Your task to perform on an android device: change your default location settings in chrome Image 0: 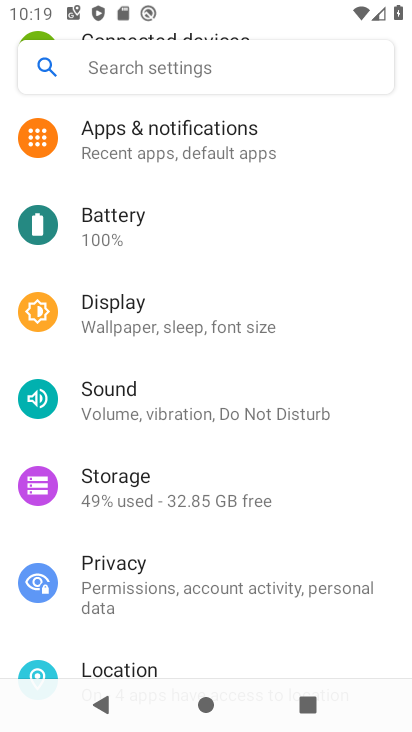
Step 0: press home button
Your task to perform on an android device: change your default location settings in chrome Image 1: 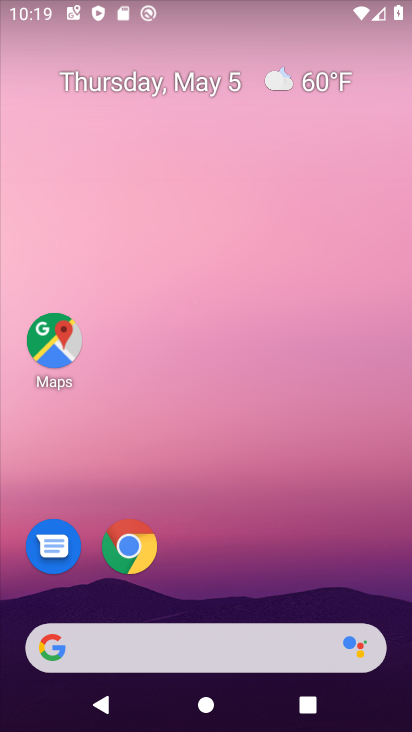
Step 1: click (123, 542)
Your task to perform on an android device: change your default location settings in chrome Image 2: 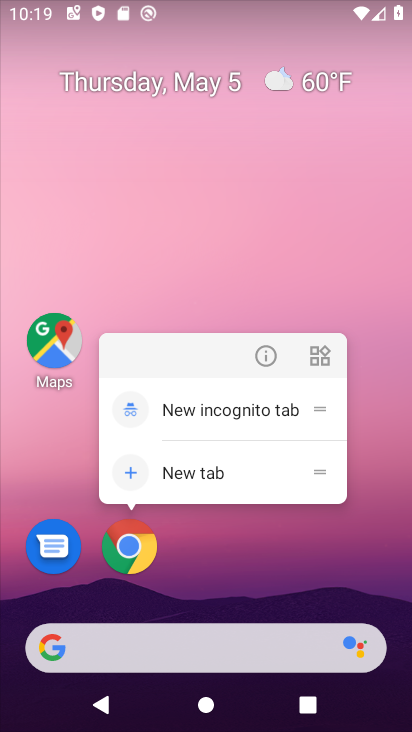
Step 2: click (123, 542)
Your task to perform on an android device: change your default location settings in chrome Image 3: 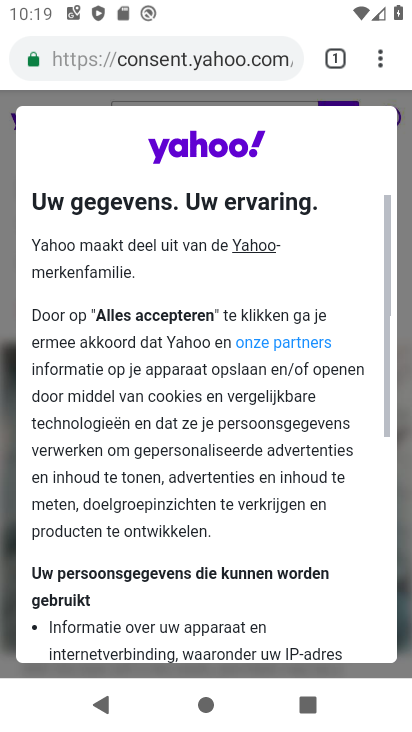
Step 3: click (362, 67)
Your task to perform on an android device: change your default location settings in chrome Image 4: 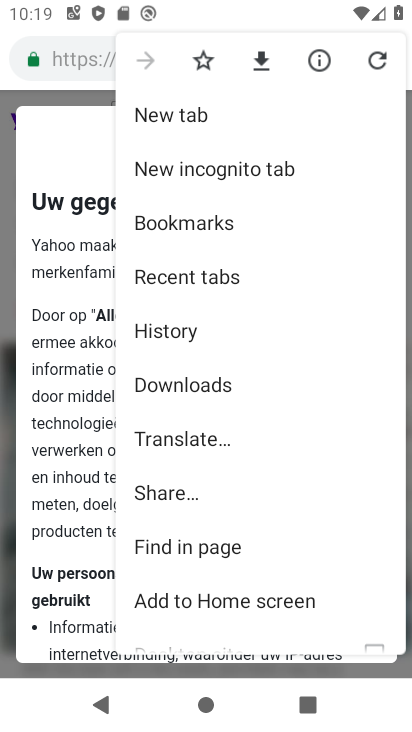
Step 4: drag from (244, 569) to (256, 341)
Your task to perform on an android device: change your default location settings in chrome Image 5: 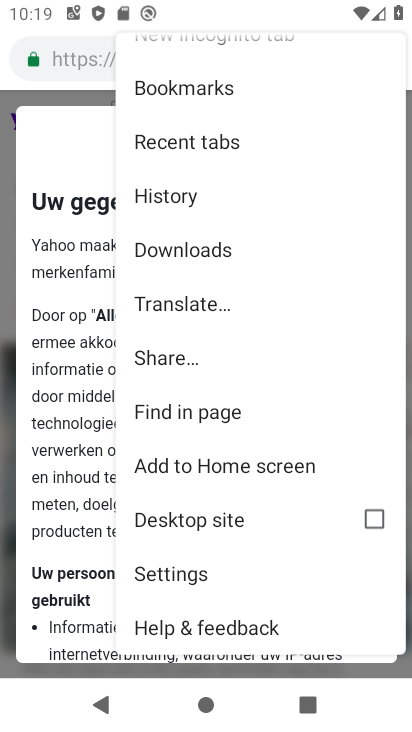
Step 5: click (190, 558)
Your task to perform on an android device: change your default location settings in chrome Image 6: 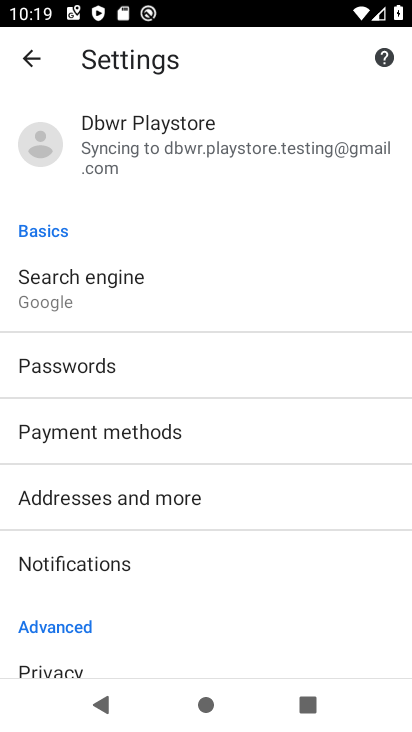
Step 6: drag from (132, 658) to (129, 507)
Your task to perform on an android device: change your default location settings in chrome Image 7: 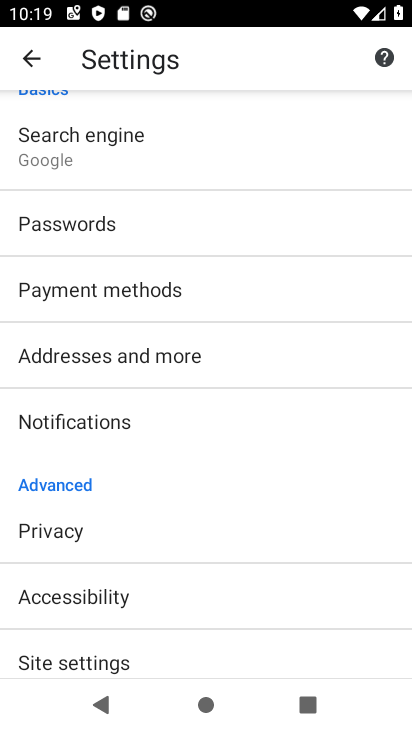
Step 7: click (65, 656)
Your task to perform on an android device: change your default location settings in chrome Image 8: 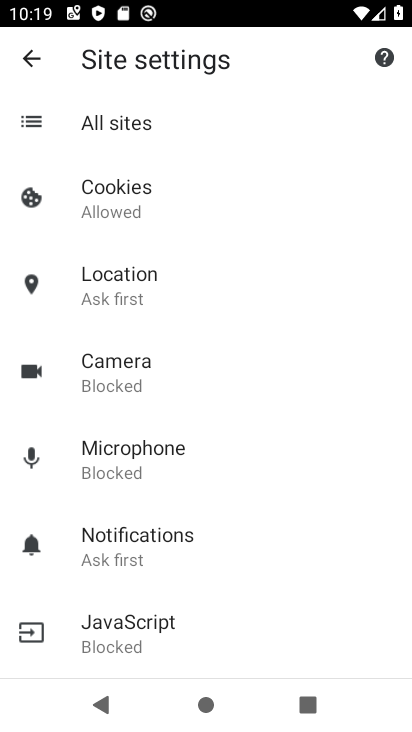
Step 8: click (156, 296)
Your task to perform on an android device: change your default location settings in chrome Image 9: 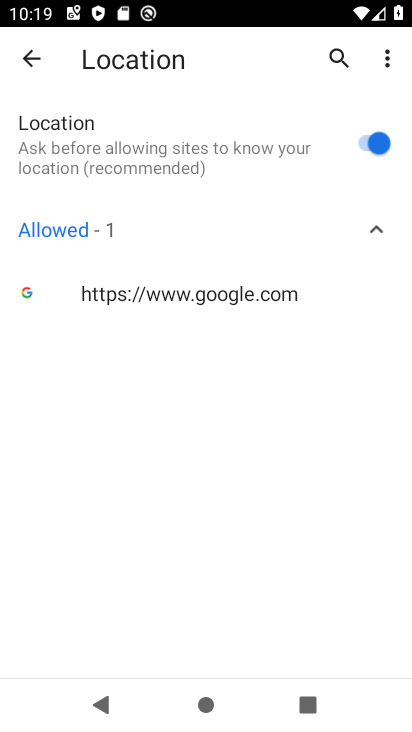
Step 9: click (372, 143)
Your task to perform on an android device: change your default location settings in chrome Image 10: 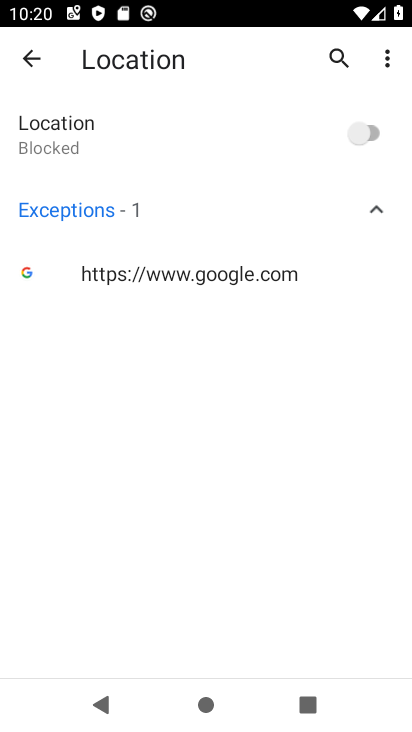
Step 10: task complete